Your task to perform on an android device: choose inbox layout in the gmail app Image 0: 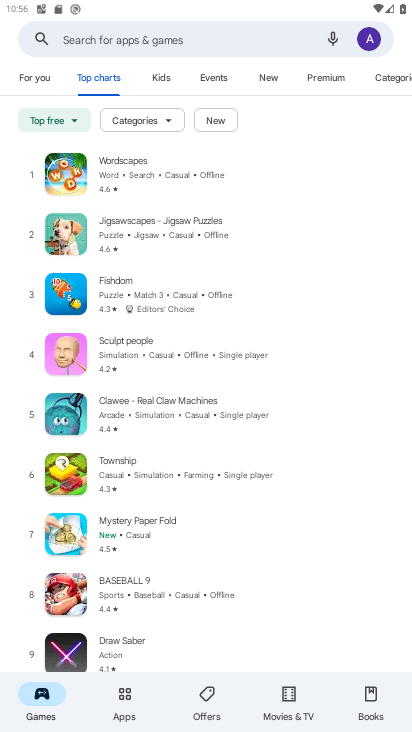
Step 0: press home button
Your task to perform on an android device: choose inbox layout in the gmail app Image 1: 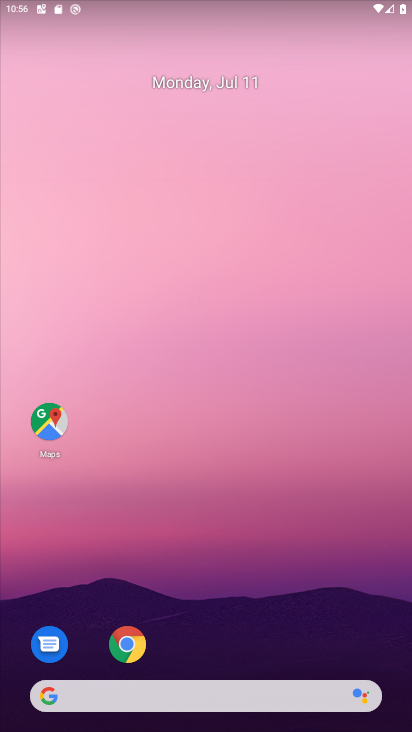
Step 1: drag from (255, 628) to (199, 267)
Your task to perform on an android device: choose inbox layout in the gmail app Image 2: 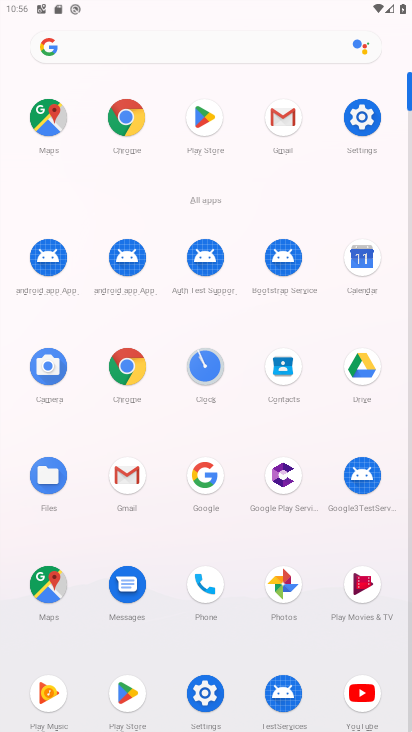
Step 2: click (286, 130)
Your task to perform on an android device: choose inbox layout in the gmail app Image 3: 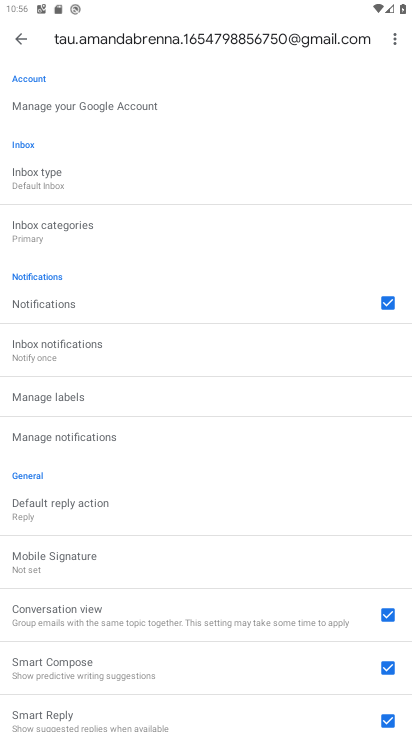
Step 3: click (46, 188)
Your task to perform on an android device: choose inbox layout in the gmail app Image 4: 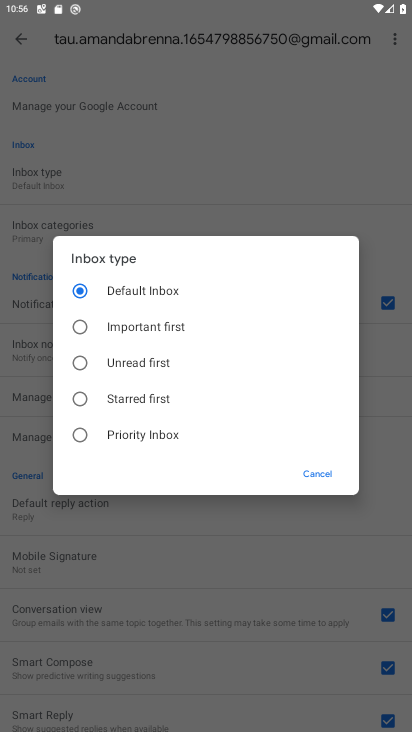
Step 4: click (99, 326)
Your task to perform on an android device: choose inbox layout in the gmail app Image 5: 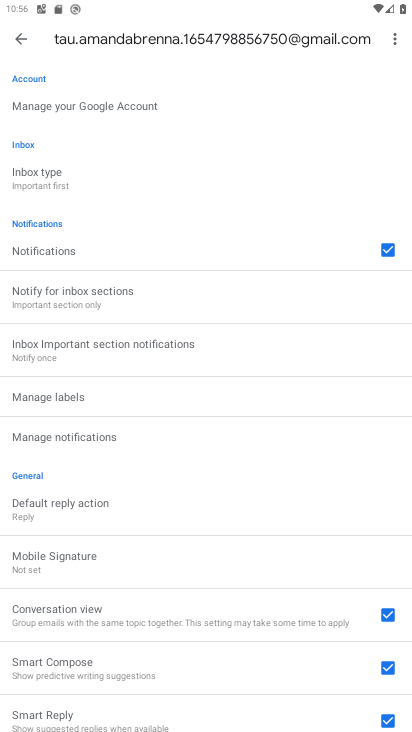
Step 5: task complete